Your task to perform on an android device: open app "Pandora - Music & Podcasts" (install if not already installed) Image 0: 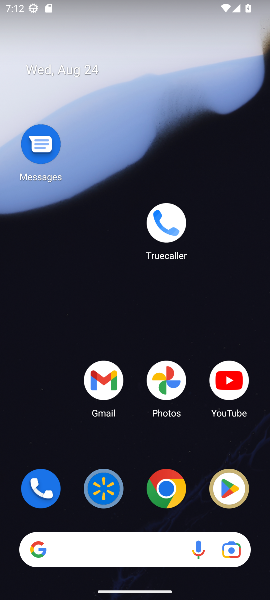
Step 0: click (218, 493)
Your task to perform on an android device: open app "Pandora - Music & Podcasts" (install if not already installed) Image 1: 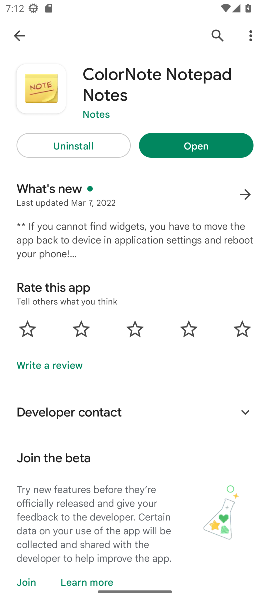
Step 1: click (212, 44)
Your task to perform on an android device: open app "Pandora - Music & Podcasts" (install if not already installed) Image 2: 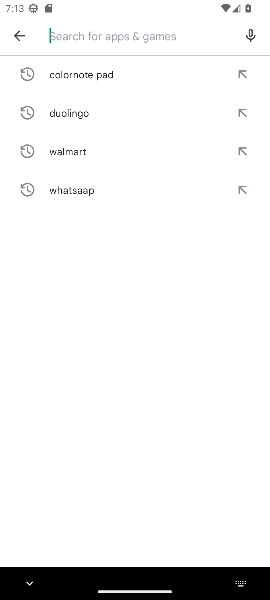
Step 2: type "pandora"
Your task to perform on an android device: open app "Pandora - Music & Podcasts" (install if not already installed) Image 3: 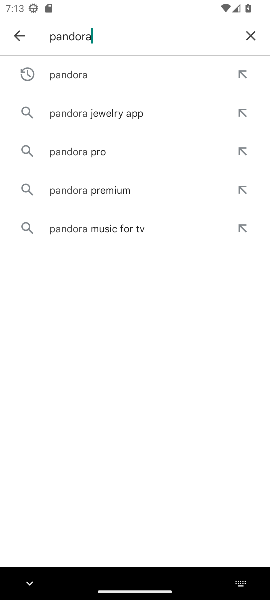
Step 3: click (125, 65)
Your task to perform on an android device: open app "Pandora - Music & Podcasts" (install if not already installed) Image 4: 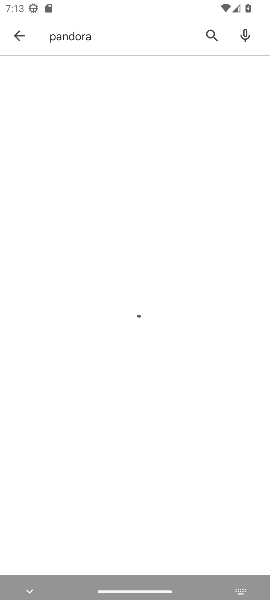
Step 4: click (159, 74)
Your task to perform on an android device: open app "Pandora - Music & Podcasts" (install if not already installed) Image 5: 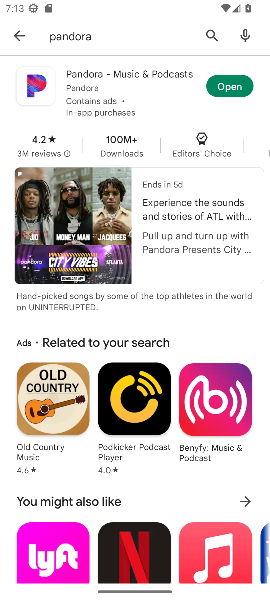
Step 5: click (230, 85)
Your task to perform on an android device: open app "Pandora - Music & Podcasts" (install if not already installed) Image 6: 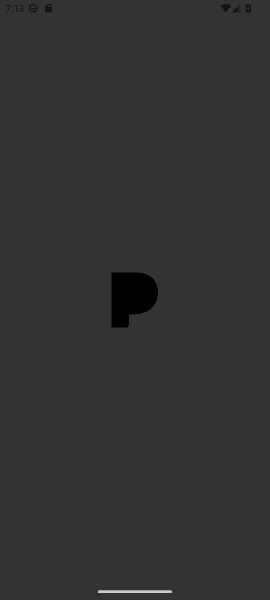
Step 6: task complete